Your task to perform on an android device: Open Google Chrome and click the shortcut for Amazon.com Image 0: 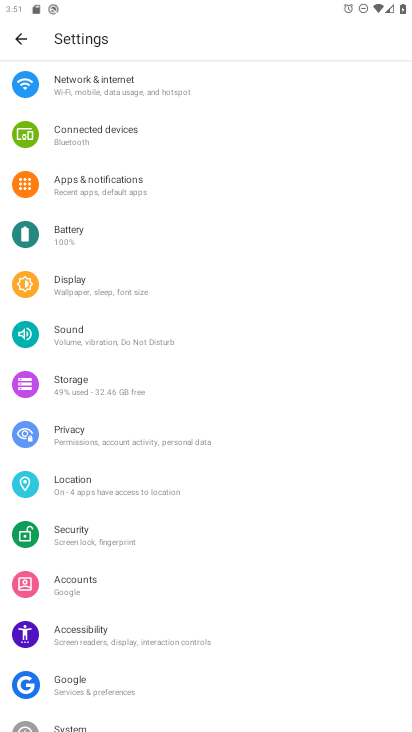
Step 0: press home button
Your task to perform on an android device: Open Google Chrome and click the shortcut for Amazon.com Image 1: 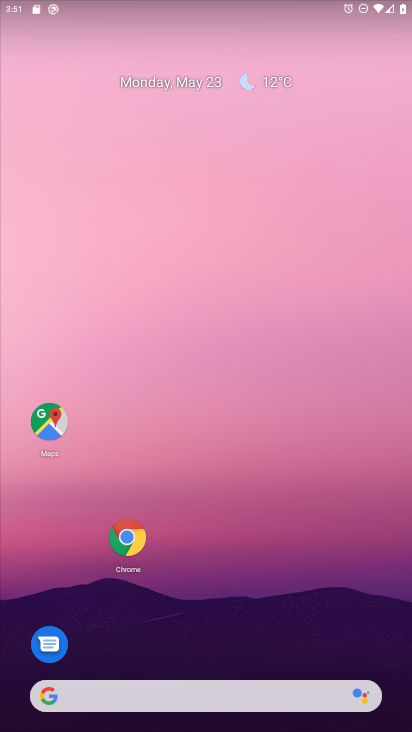
Step 1: click (135, 533)
Your task to perform on an android device: Open Google Chrome and click the shortcut for Amazon.com Image 2: 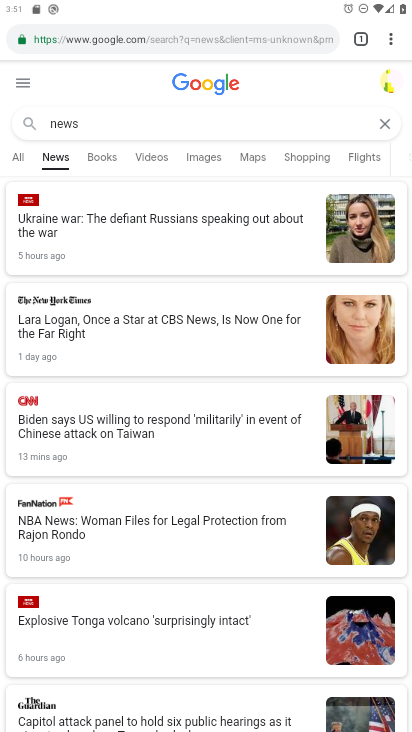
Step 2: click (256, 29)
Your task to perform on an android device: Open Google Chrome and click the shortcut for Amazon.com Image 3: 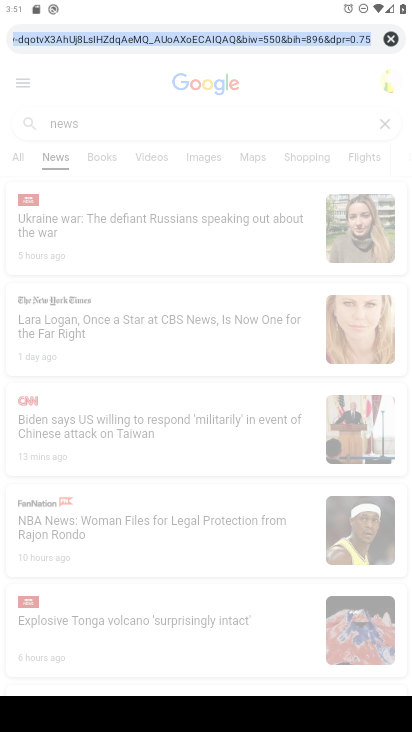
Step 3: click (383, 39)
Your task to perform on an android device: Open Google Chrome and click the shortcut for Amazon.com Image 4: 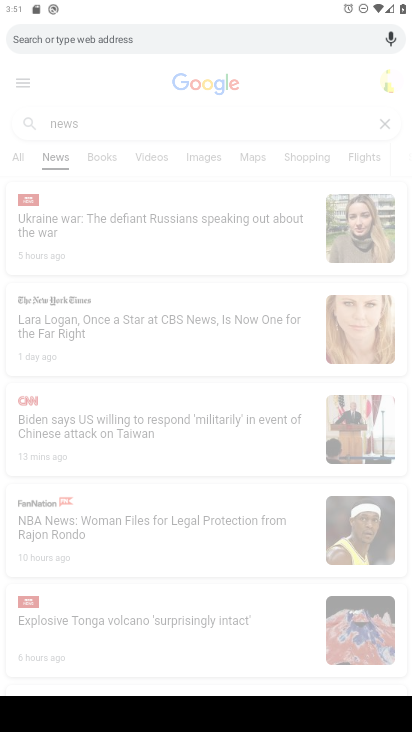
Step 4: press back button
Your task to perform on an android device: Open Google Chrome and click the shortcut for Amazon.com Image 5: 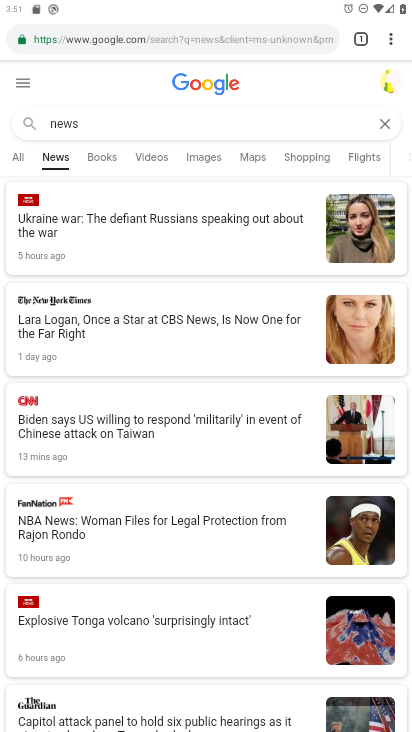
Step 5: click (391, 36)
Your task to perform on an android device: Open Google Chrome and click the shortcut for Amazon.com Image 6: 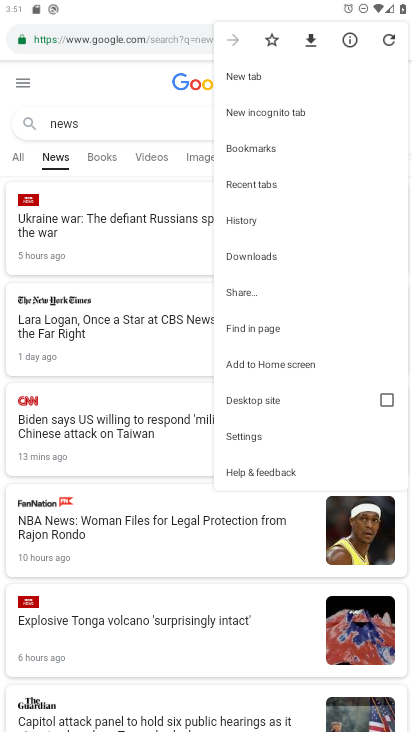
Step 6: click (286, 78)
Your task to perform on an android device: Open Google Chrome and click the shortcut for Amazon.com Image 7: 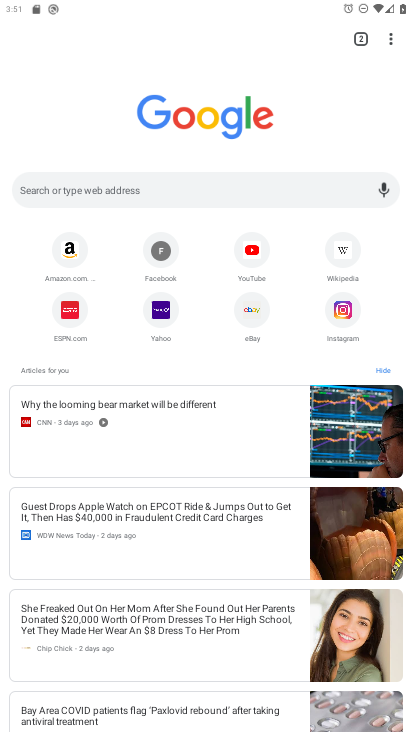
Step 7: click (72, 260)
Your task to perform on an android device: Open Google Chrome and click the shortcut for Amazon.com Image 8: 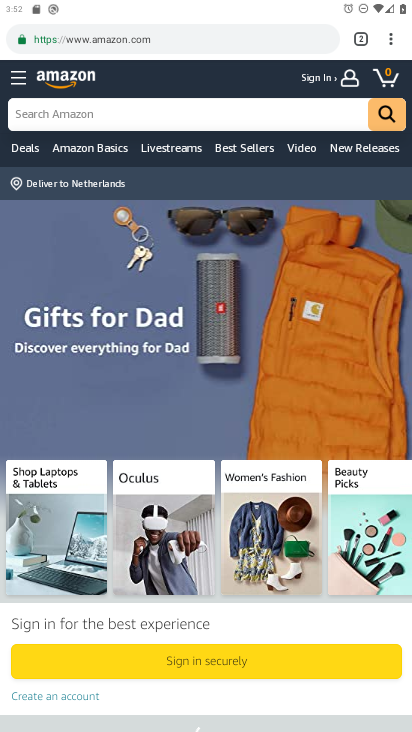
Step 8: task complete